Your task to perform on an android device: open chrome and create a bookmark for the current page Image 0: 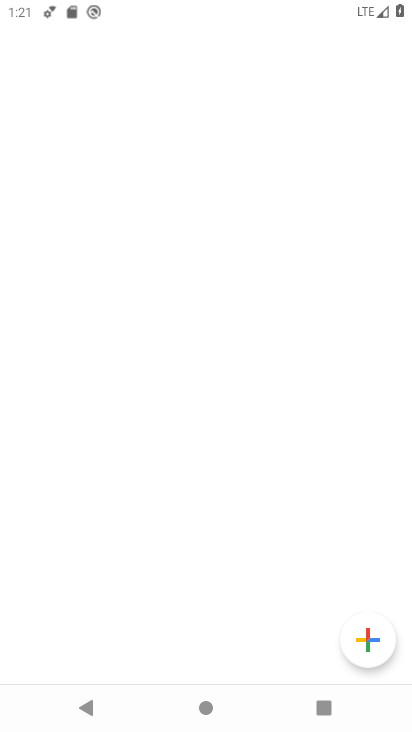
Step 0: drag from (253, 598) to (268, 164)
Your task to perform on an android device: open chrome and create a bookmark for the current page Image 1: 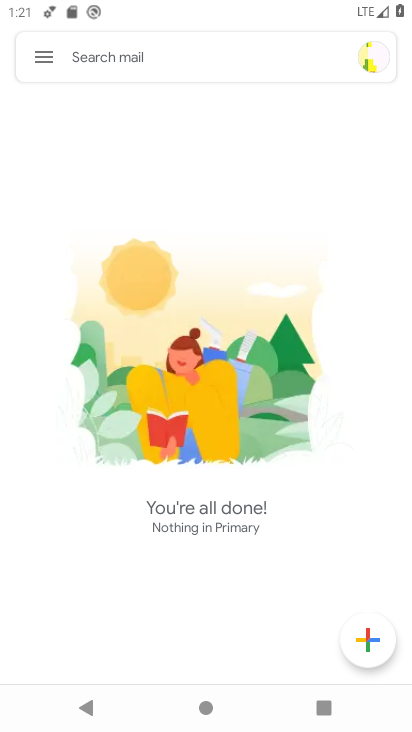
Step 1: press home button
Your task to perform on an android device: open chrome and create a bookmark for the current page Image 2: 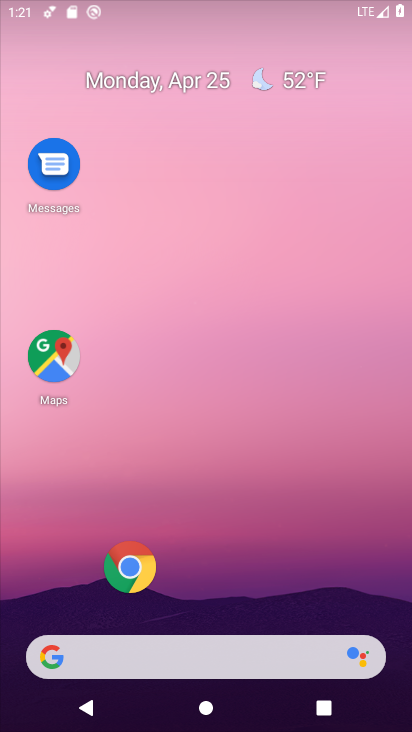
Step 2: drag from (247, 602) to (229, 189)
Your task to perform on an android device: open chrome and create a bookmark for the current page Image 3: 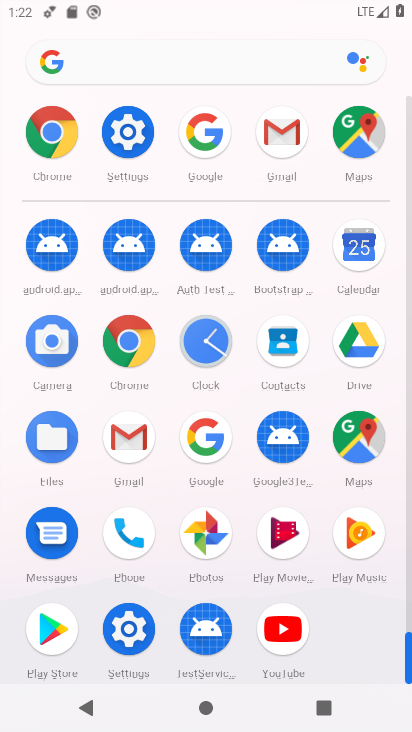
Step 3: click (137, 335)
Your task to perform on an android device: open chrome and create a bookmark for the current page Image 4: 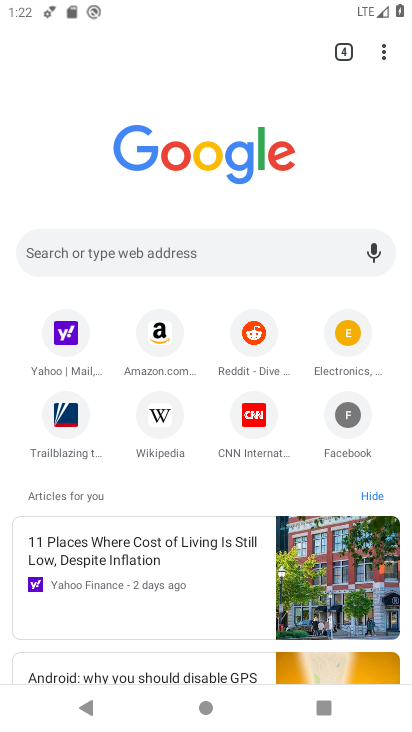
Step 4: click (385, 54)
Your task to perform on an android device: open chrome and create a bookmark for the current page Image 5: 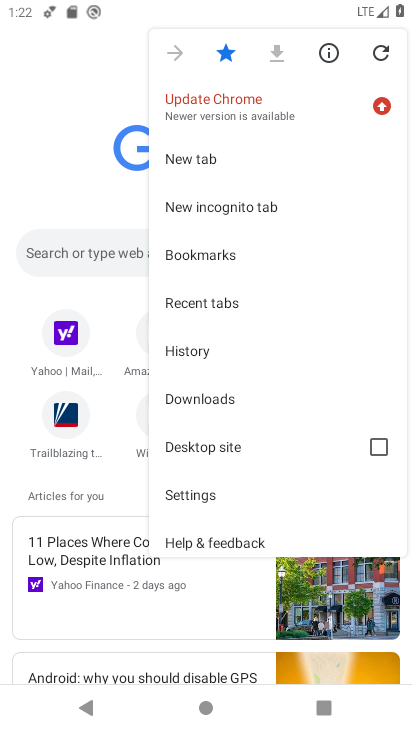
Step 5: click (222, 492)
Your task to perform on an android device: open chrome and create a bookmark for the current page Image 6: 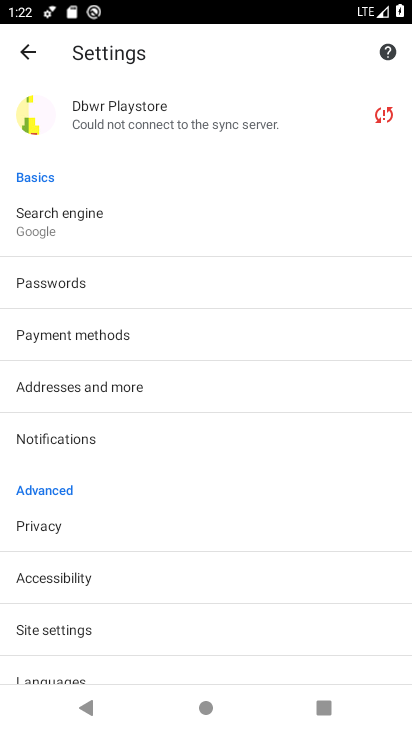
Step 6: click (37, 54)
Your task to perform on an android device: open chrome and create a bookmark for the current page Image 7: 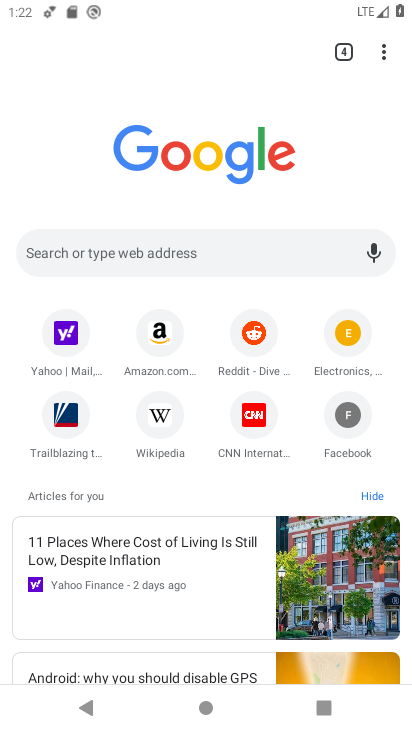
Step 7: click (357, 345)
Your task to perform on an android device: open chrome and create a bookmark for the current page Image 8: 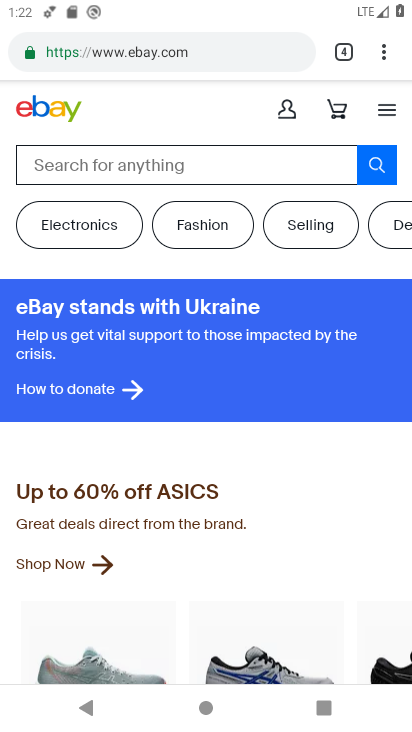
Step 8: click (383, 50)
Your task to perform on an android device: open chrome and create a bookmark for the current page Image 9: 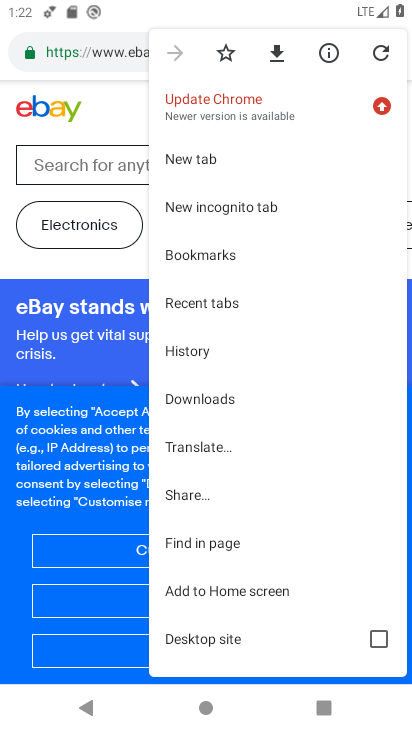
Step 9: click (229, 58)
Your task to perform on an android device: open chrome and create a bookmark for the current page Image 10: 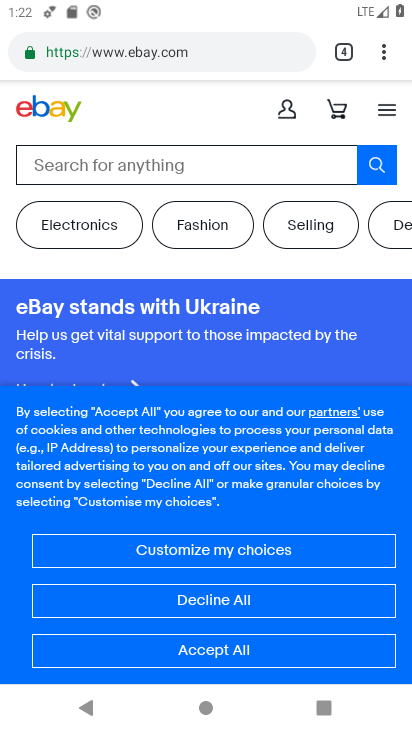
Step 10: task complete